Your task to perform on an android device: Go to wifi settings Image 0: 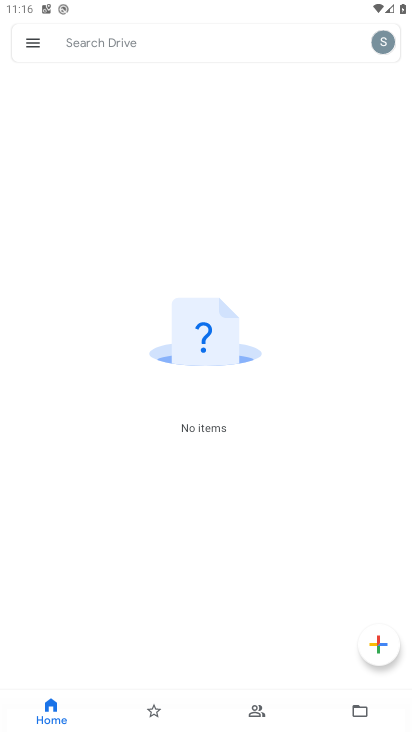
Step 0: press home button
Your task to perform on an android device: Go to wifi settings Image 1: 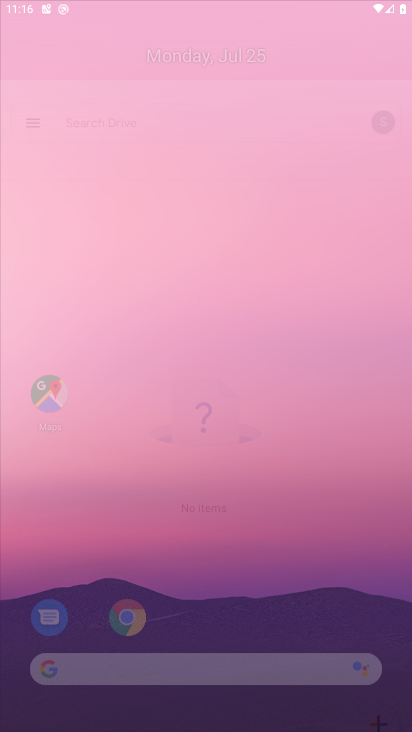
Step 1: drag from (236, 602) to (184, 244)
Your task to perform on an android device: Go to wifi settings Image 2: 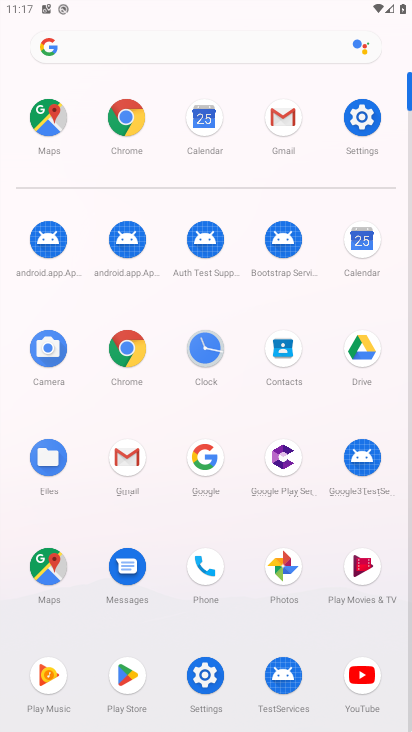
Step 2: drag from (230, 6) to (347, 566)
Your task to perform on an android device: Go to wifi settings Image 3: 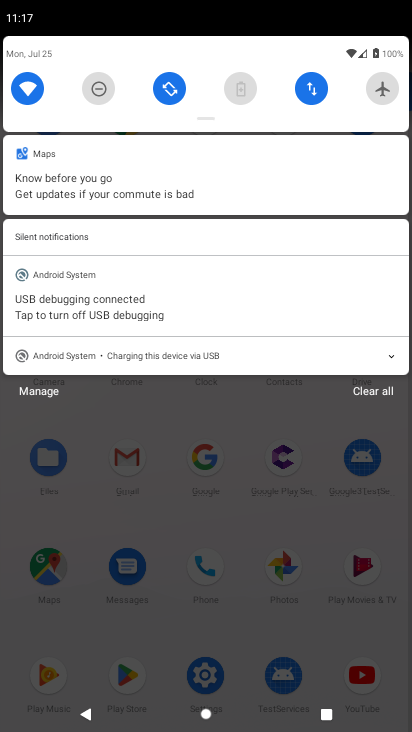
Step 3: click (30, 97)
Your task to perform on an android device: Go to wifi settings Image 4: 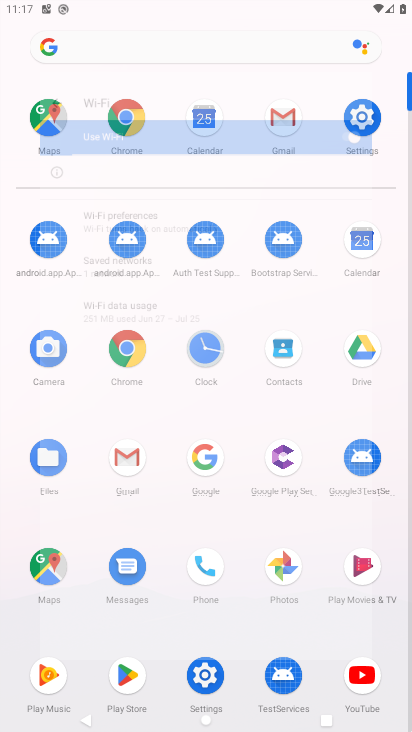
Step 4: click (30, 97)
Your task to perform on an android device: Go to wifi settings Image 5: 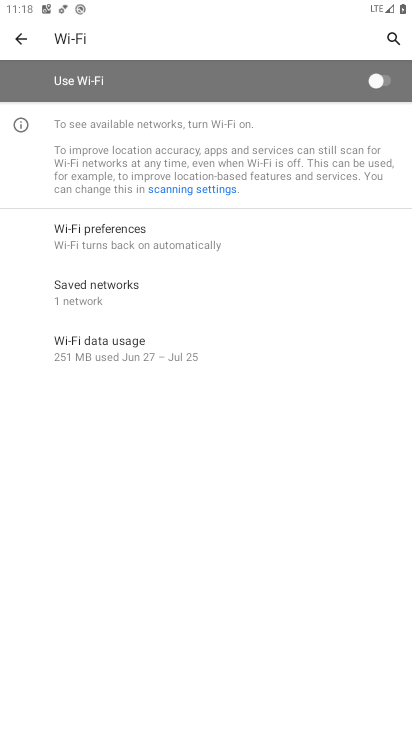
Step 5: task complete